Your task to perform on an android device: Open Chrome and go to the settings page Image 0: 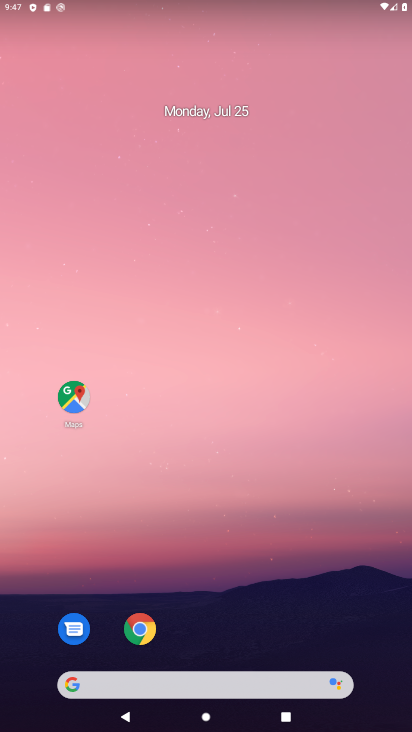
Step 0: drag from (359, 614) to (272, 38)
Your task to perform on an android device: Open Chrome and go to the settings page Image 1: 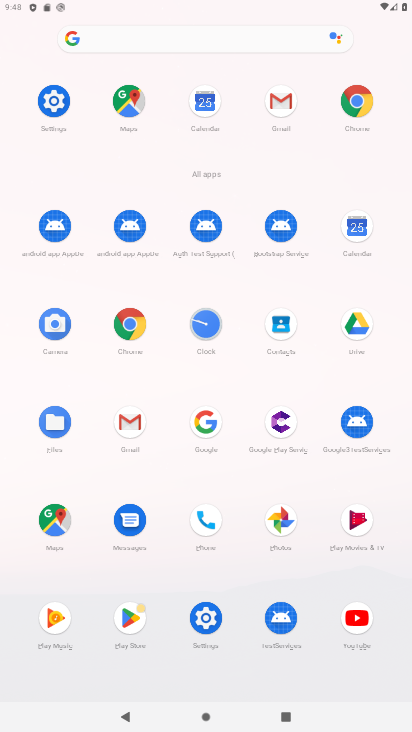
Step 1: click (360, 102)
Your task to perform on an android device: Open Chrome and go to the settings page Image 2: 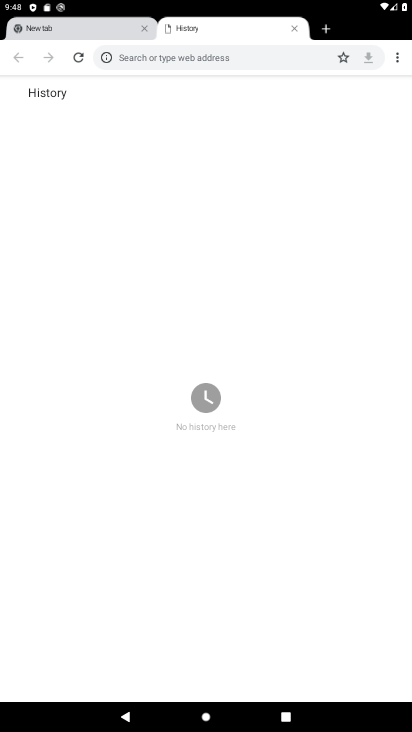
Step 2: task complete